Your task to perform on an android device: turn smart compose on in the gmail app Image 0: 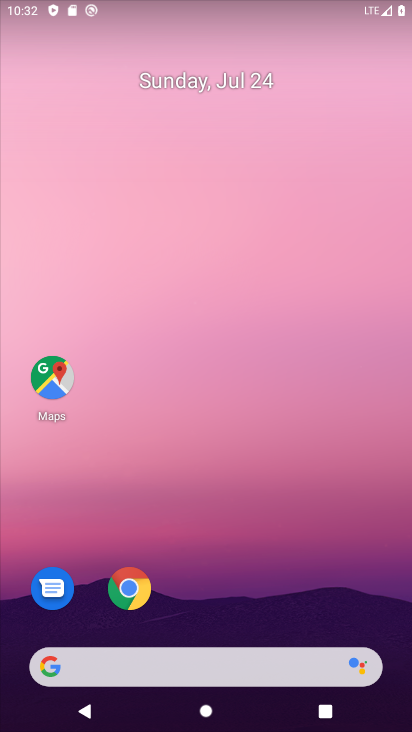
Step 0: drag from (215, 545) to (299, 105)
Your task to perform on an android device: turn smart compose on in the gmail app Image 1: 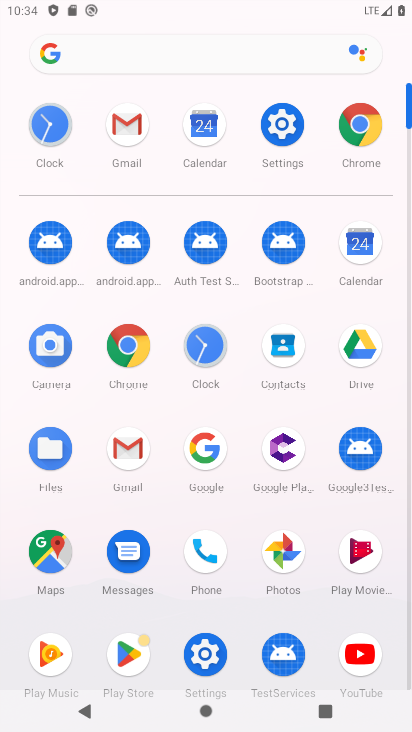
Step 1: click (120, 122)
Your task to perform on an android device: turn smart compose on in the gmail app Image 2: 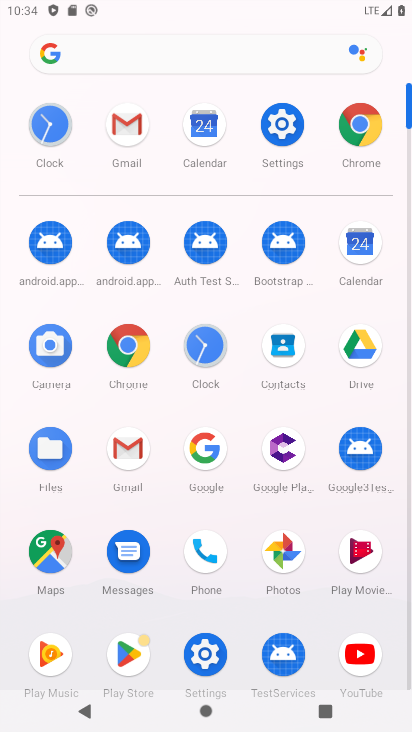
Step 2: click (120, 122)
Your task to perform on an android device: turn smart compose on in the gmail app Image 3: 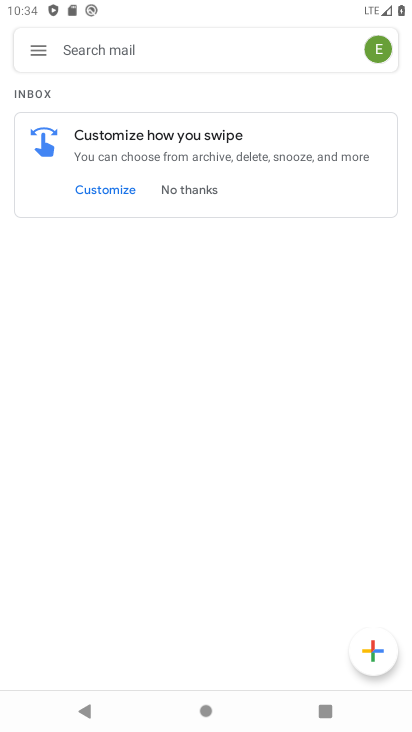
Step 3: click (33, 48)
Your task to perform on an android device: turn smart compose on in the gmail app Image 4: 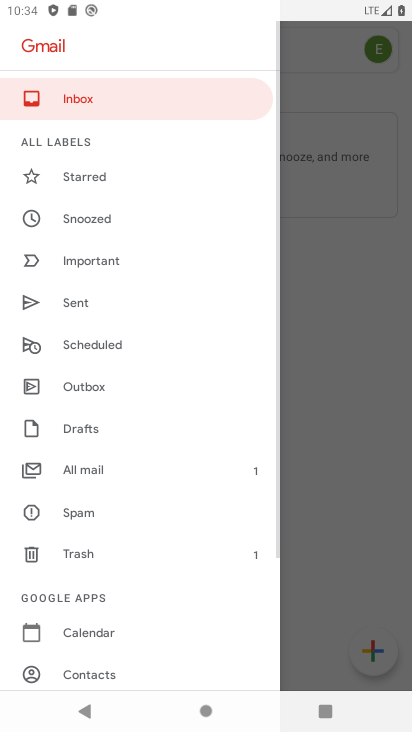
Step 4: drag from (103, 554) to (218, 15)
Your task to perform on an android device: turn smart compose on in the gmail app Image 5: 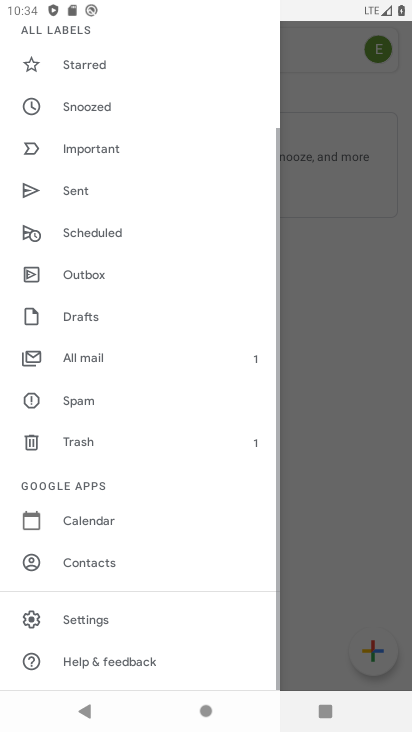
Step 5: click (112, 611)
Your task to perform on an android device: turn smart compose on in the gmail app Image 6: 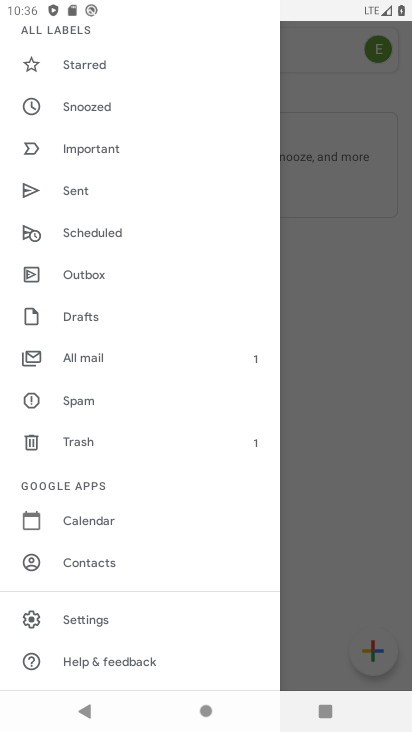
Step 6: click (80, 619)
Your task to perform on an android device: turn smart compose on in the gmail app Image 7: 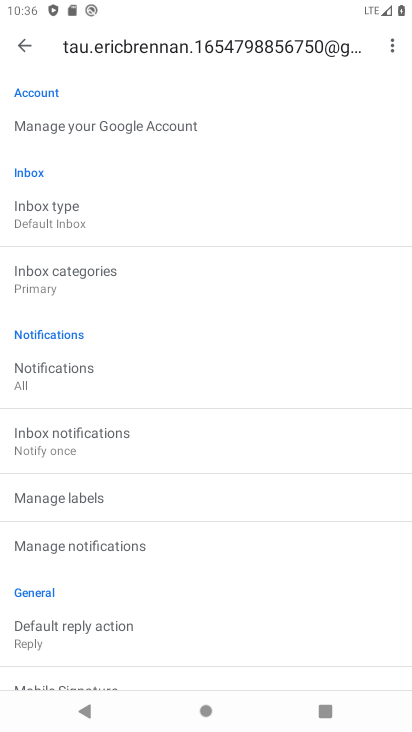
Step 7: task complete